Your task to perform on an android device: Open maps Image 0: 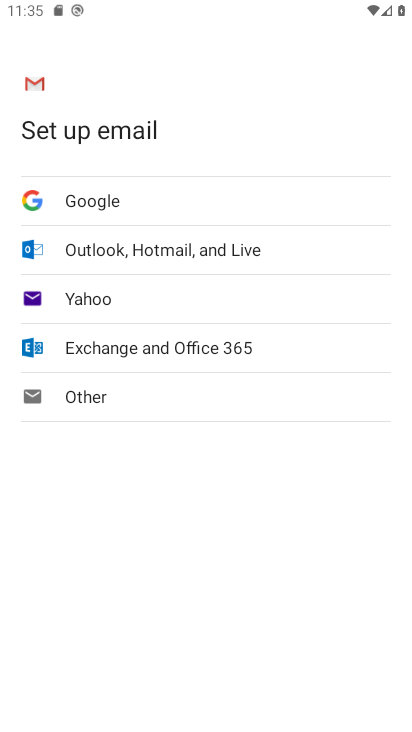
Step 0: press home button
Your task to perform on an android device: Open maps Image 1: 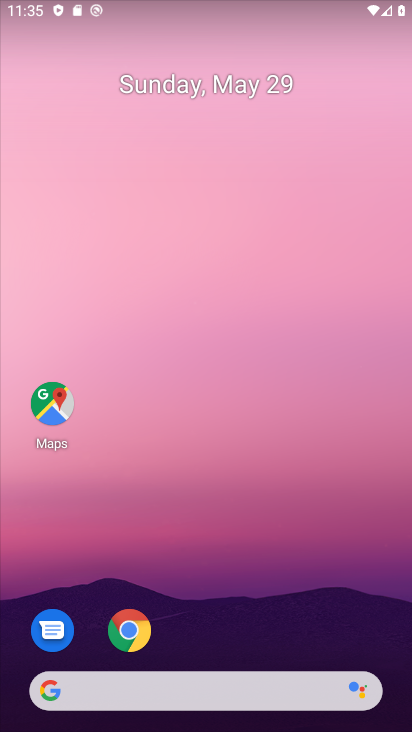
Step 1: click (60, 402)
Your task to perform on an android device: Open maps Image 2: 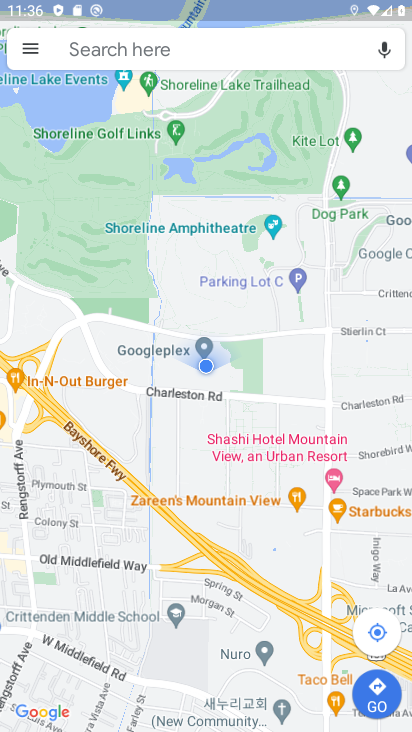
Step 2: task complete